Your task to perform on an android device: Open calendar and show me the third week of next month Image 0: 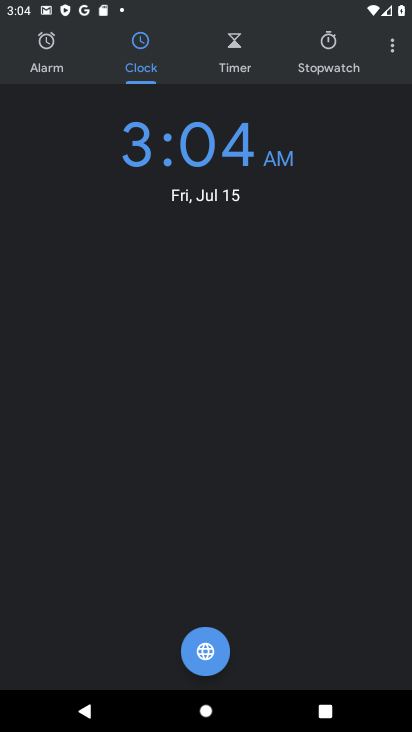
Step 0: press home button
Your task to perform on an android device: Open calendar and show me the third week of next month Image 1: 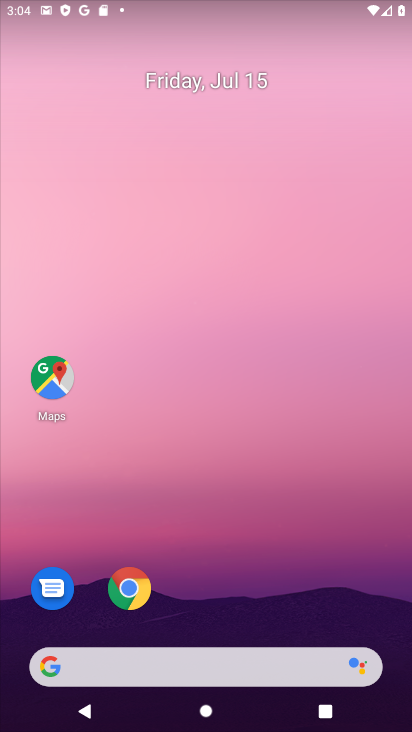
Step 1: drag from (272, 615) to (174, 95)
Your task to perform on an android device: Open calendar and show me the third week of next month Image 2: 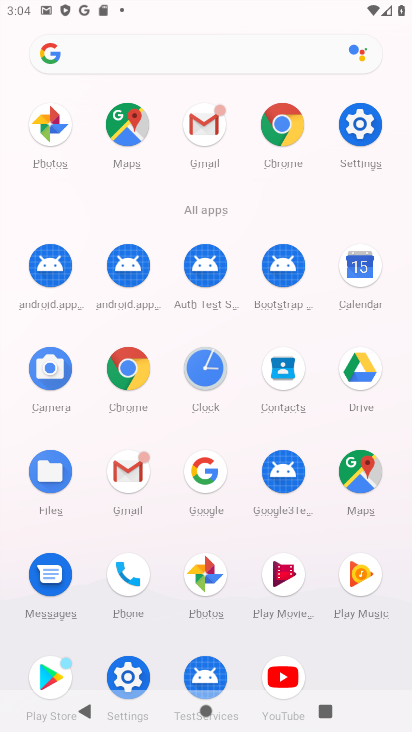
Step 2: click (354, 274)
Your task to perform on an android device: Open calendar and show me the third week of next month Image 3: 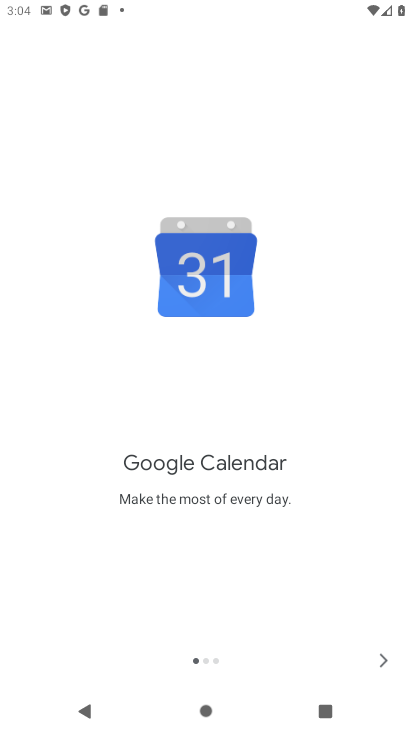
Step 3: click (388, 664)
Your task to perform on an android device: Open calendar and show me the third week of next month Image 4: 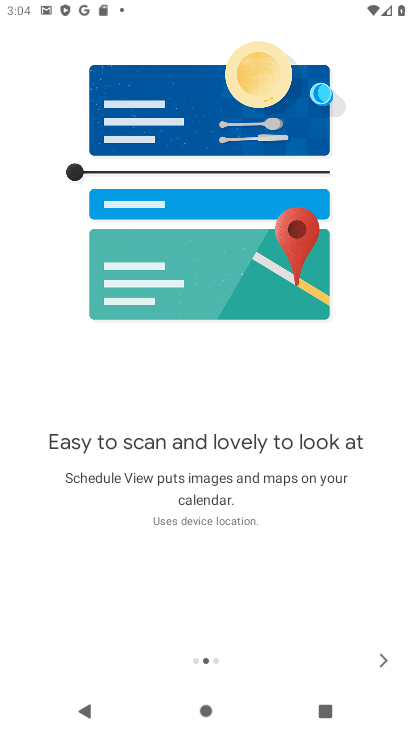
Step 4: click (388, 664)
Your task to perform on an android device: Open calendar and show me the third week of next month Image 5: 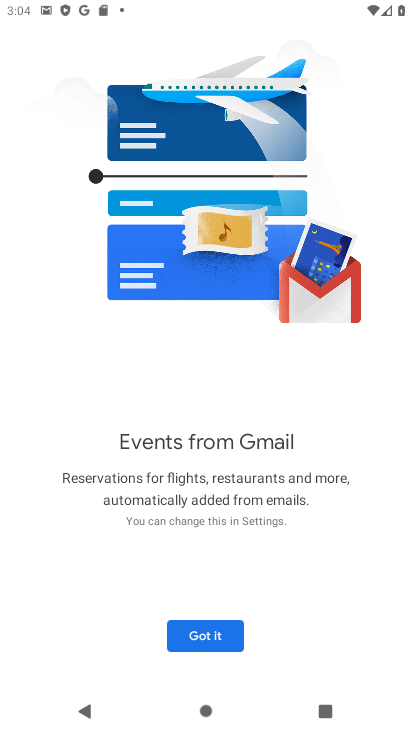
Step 5: click (221, 634)
Your task to perform on an android device: Open calendar and show me the third week of next month Image 6: 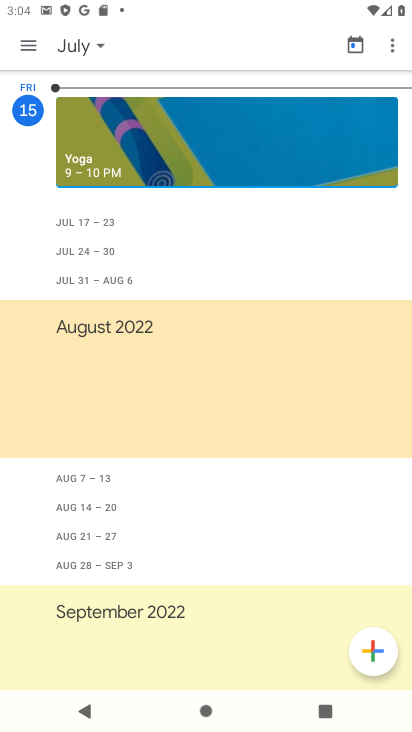
Step 6: click (29, 45)
Your task to perform on an android device: Open calendar and show me the third week of next month Image 7: 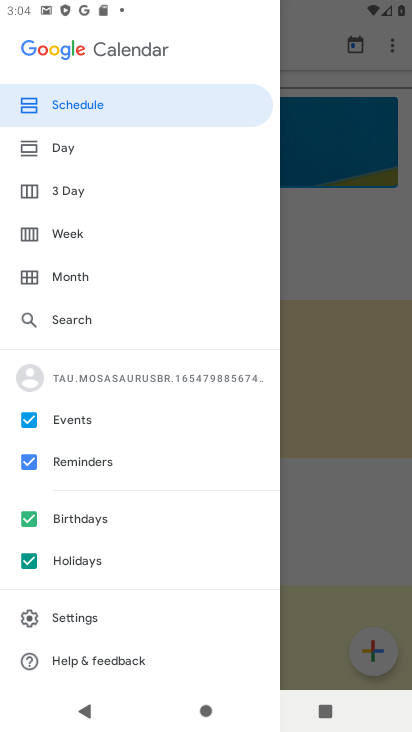
Step 7: click (72, 235)
Your task to perform on an android device: Open calendar and show me the third week of next month Image 8: 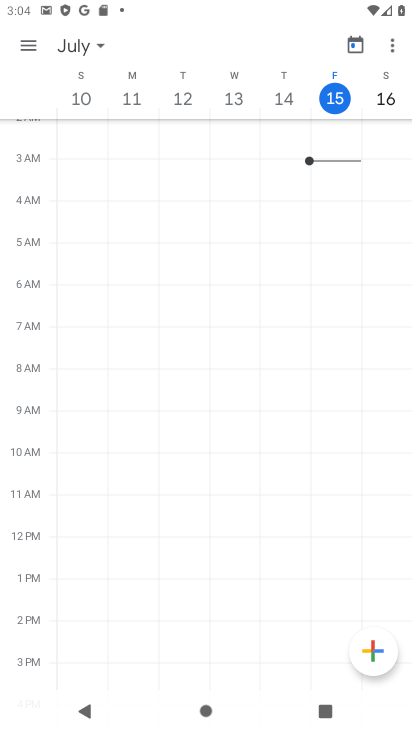
Step 8: click (95, 47)
Your task to perform on an android device: Open calendar and show me the third week of next month Image 9: 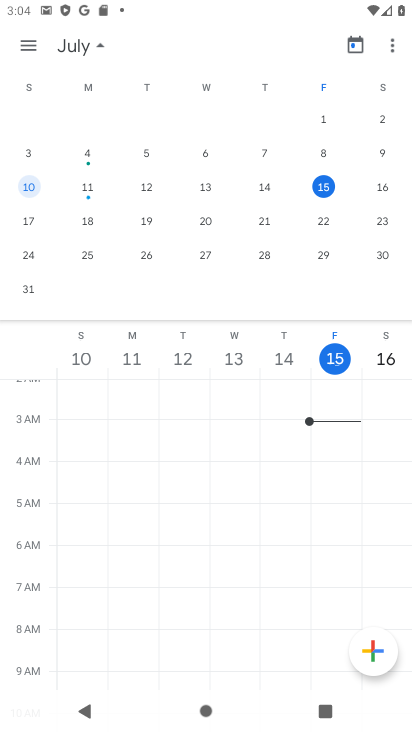
Step 9: drag from (393, 196) to (77, 179)
Your task to perform on an android device: Open calendar and show me the third week of next month Image 10: 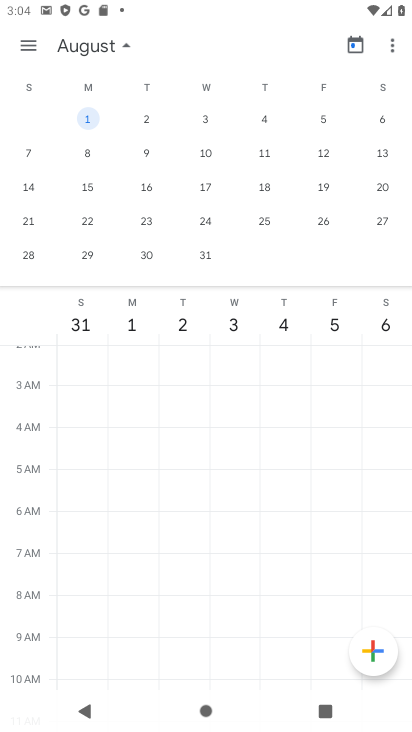
Step 10: click (197, 187)
Your task to perform on an android device: Open calendar and show me the third week of next month Image 11: 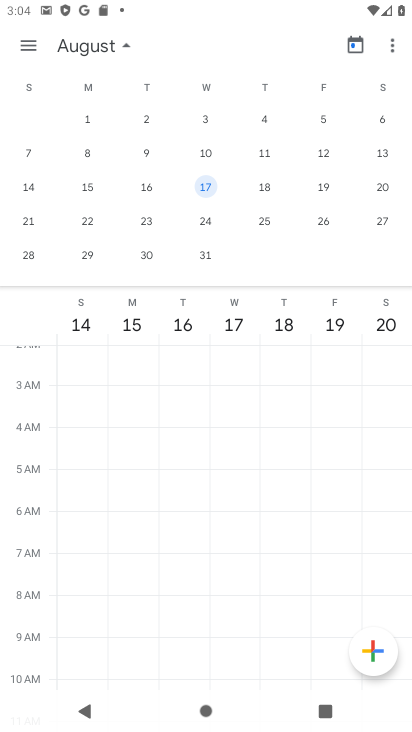
Step 11: task complete